Your task to perform on an android device: Open wifi settings Image 0: 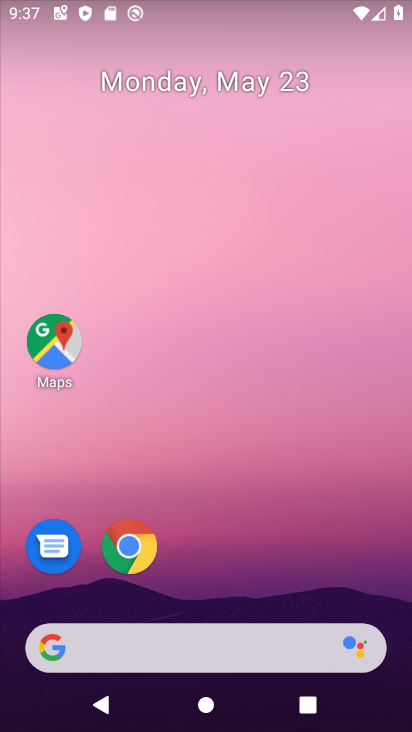
Step 0: drag from (387, 603) to (326, 49)
Your task to perform on an android device: Open wifi settings Image 1: 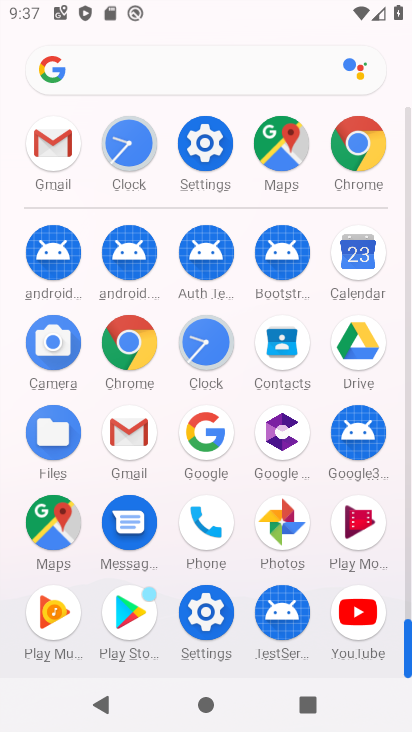
Step 1: click (209, 608)
Your task to perform on an android device: Open wifi settings Image 2: 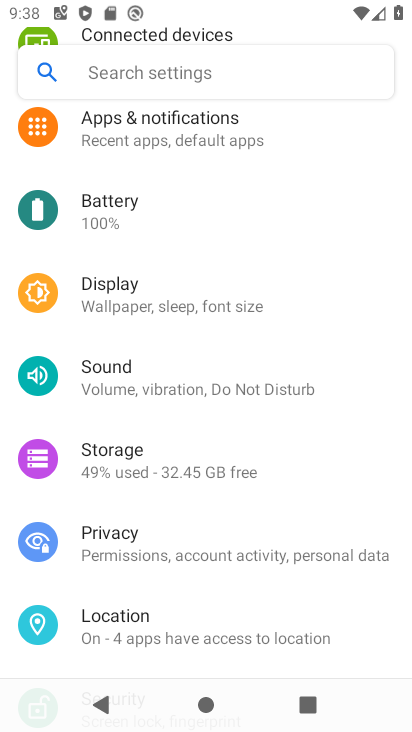
Step 2: drag from (295, 147) to (260, 457)
Your task to perform on an android device: Open wifi settings Image 3: 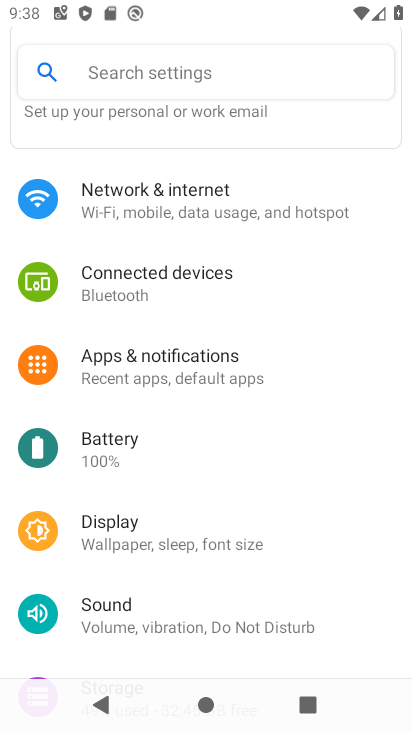
Step 3: click (134, 203)
Your task to perform on an android device: Open wifi settings Image 4: 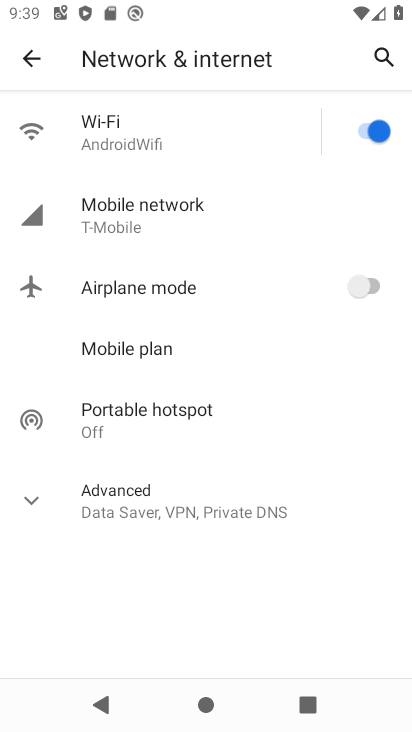
Step 4: click (97, 131)
Your task to perform on an android device: Open wifi settings Image 5: 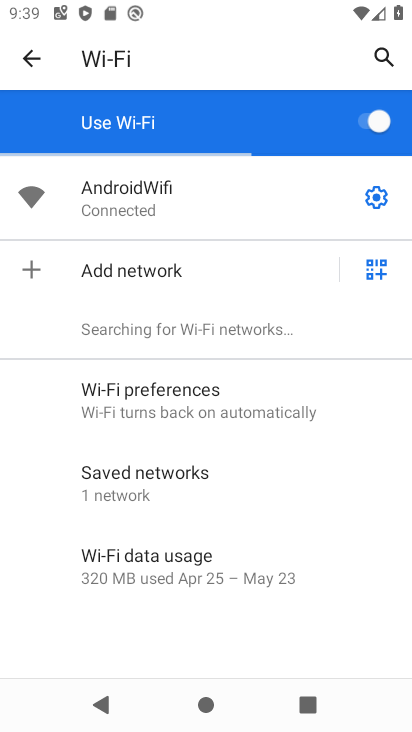
Step 5: click (369, 198)
Your task to perform on an android device: Open wifi settings Image 6: 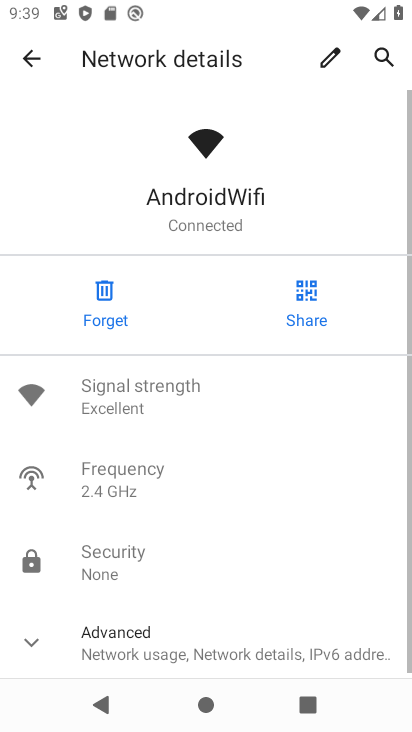
Step 6: drag from (235, 559) to (201, 174)
Your task to perform on an android device: Open wifi settings Image 7: 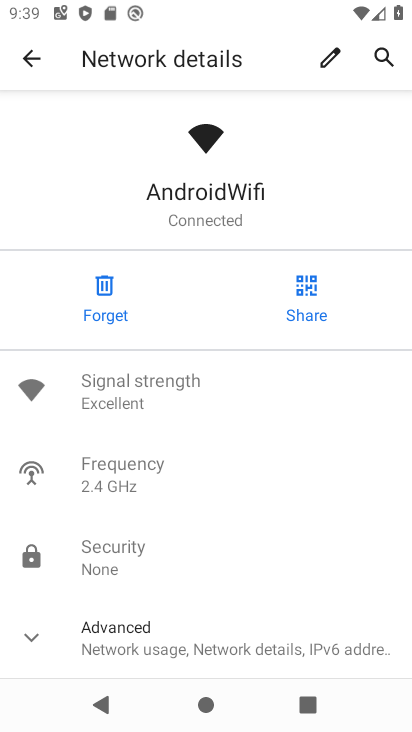
Step 7: click (28, 635)
Your task to perform on an android device: Open wifi settings Image 8: 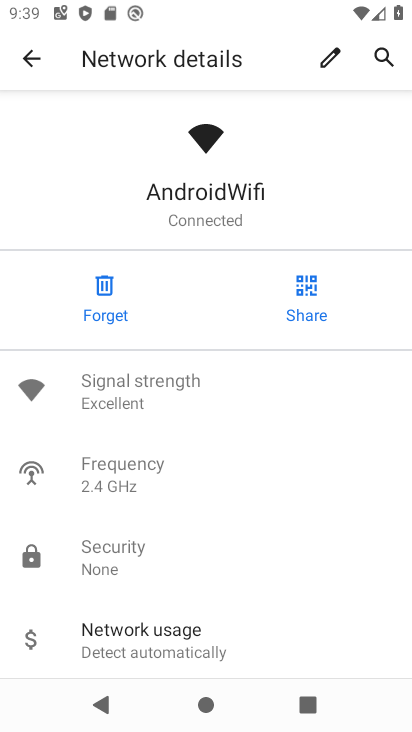
Step 8: task complete